Your task to perform on an android device: turn on sleep mode Image 0: 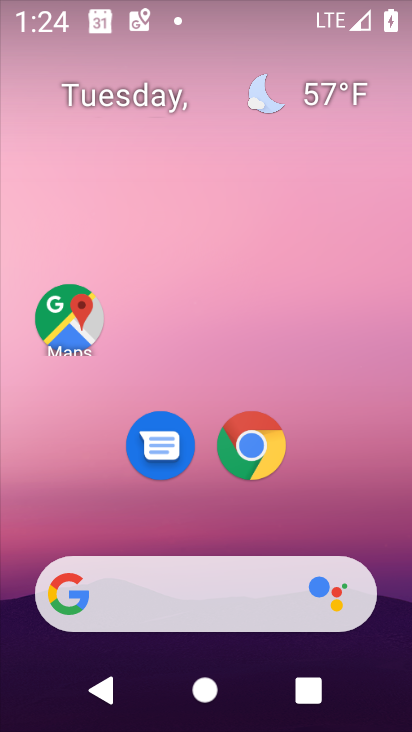
Step 0: drag from (369, 512) to (376, 127)
Your task to perform on an android device: turn on sleep mode Image 1: 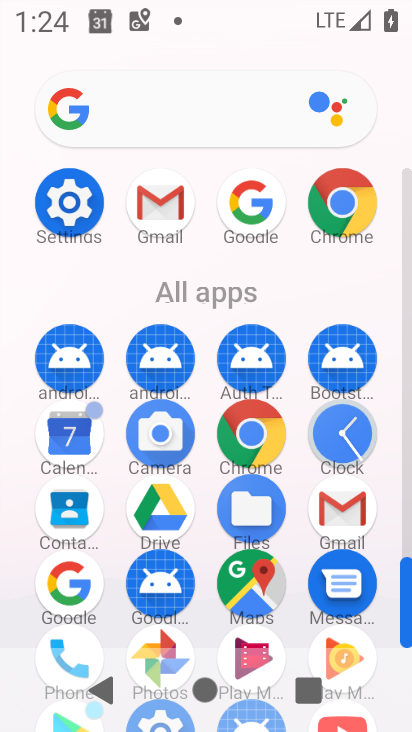
Step 1: click (74, 216)
Your task to perform on an android device: turn on sleep mode Image 2: 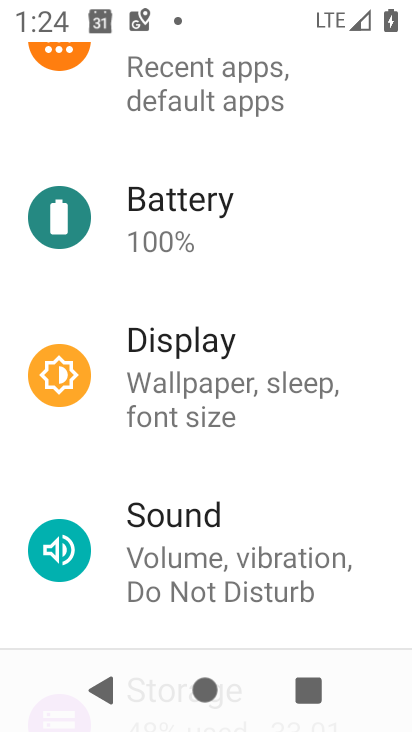
Step 2: click (274, 391)
Your task to perform on an android device: turn on sleep mode Image 3: 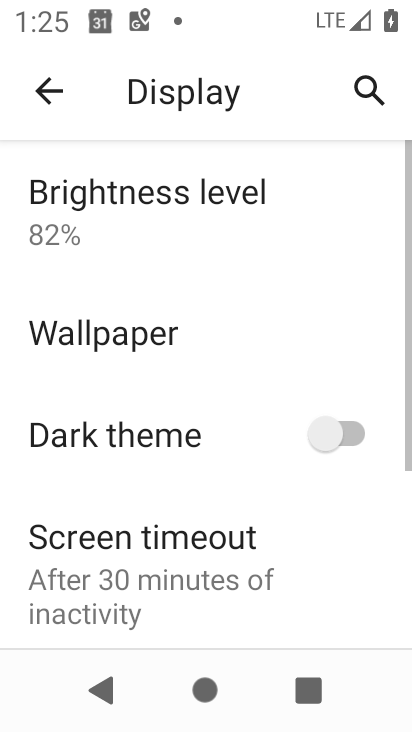
Step 3: drag from (269, 447) to (271, 327)
Your task to perform on an android device: turn on sleep mode Image 4: 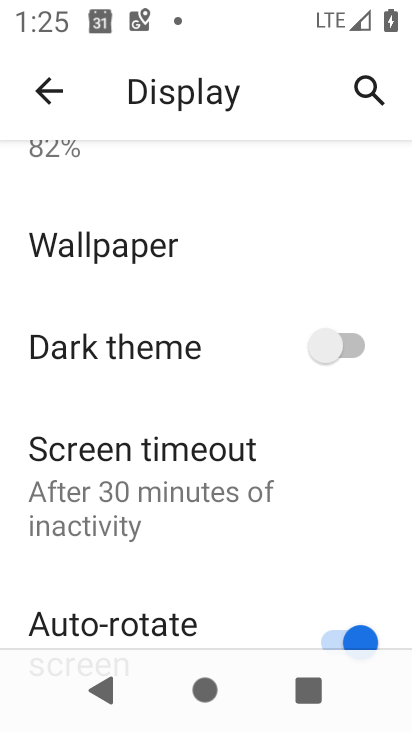
Step 4: drag from (280, 535) to (269, 360)
Your task to perform on an android device: turn on sleep mode Image 5: 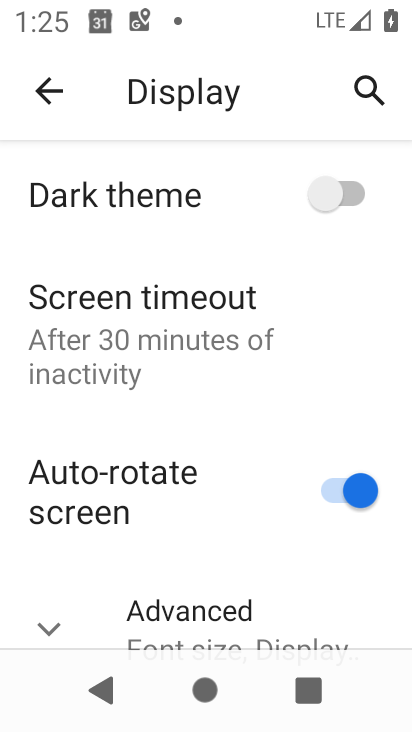
Step 5: drag from (263, 570) to (255, 377)
Your task to perform on an android device: turn on sleep mode Image 6: 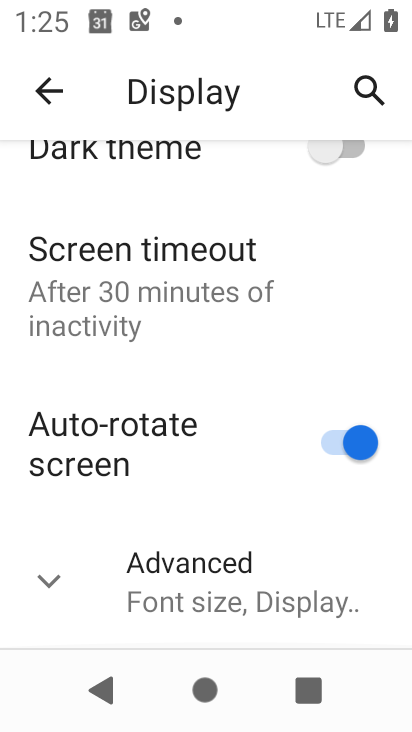
Step 6: click (229, 553)
Your task to perform on an android device: turn on sleep mode Image 7: 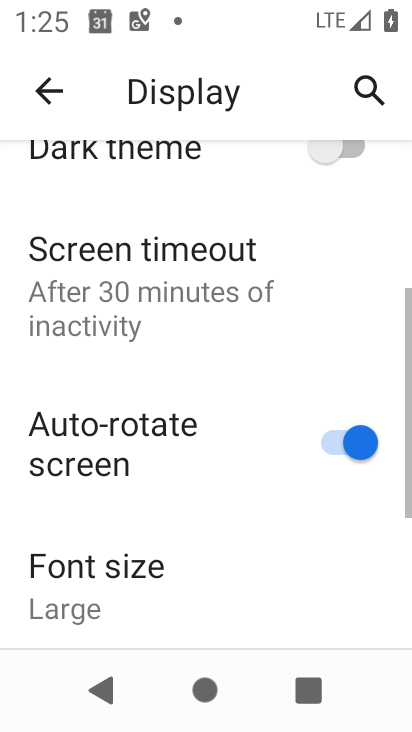
Step 7: task complete